Your task to perform on an android device: Add "razer blackwidow" to the cart on ebay, then select checkout. Image 0: 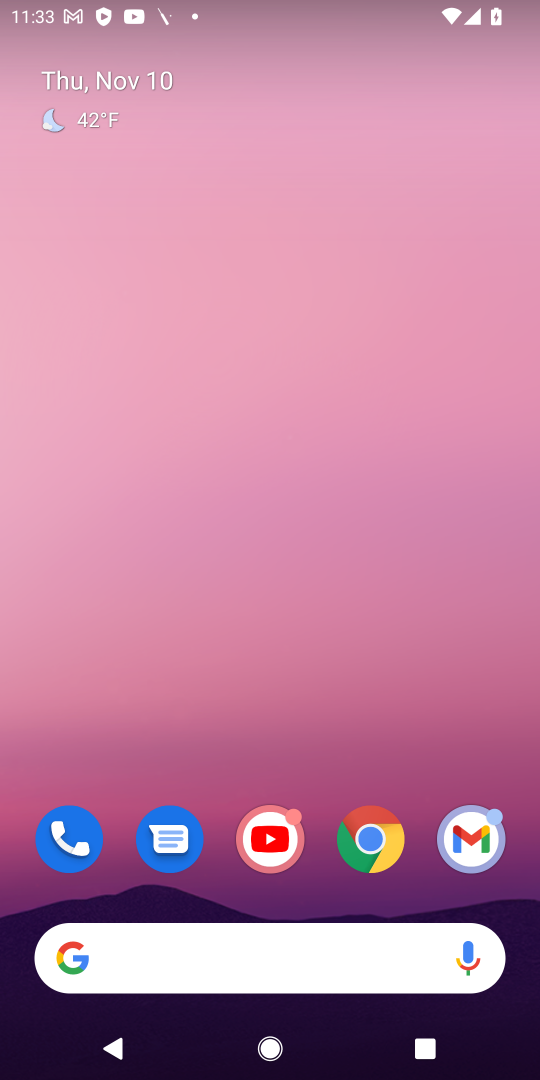
Step 0: click (382, 839)
Your task to perform on an android device: Add "razer blackwidow" to the cart on ebay, then select checkout. Image 1: 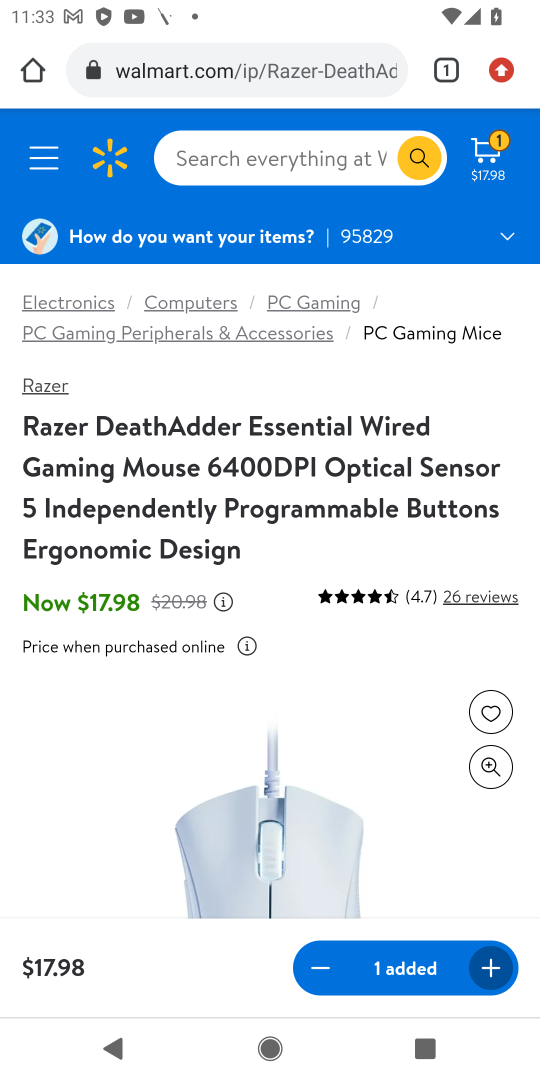
Step 1: click (323, 60)
Your task to perform on an android device: Add "razer blackwidow" to the cart on ebay, then select checkout. Image 2: 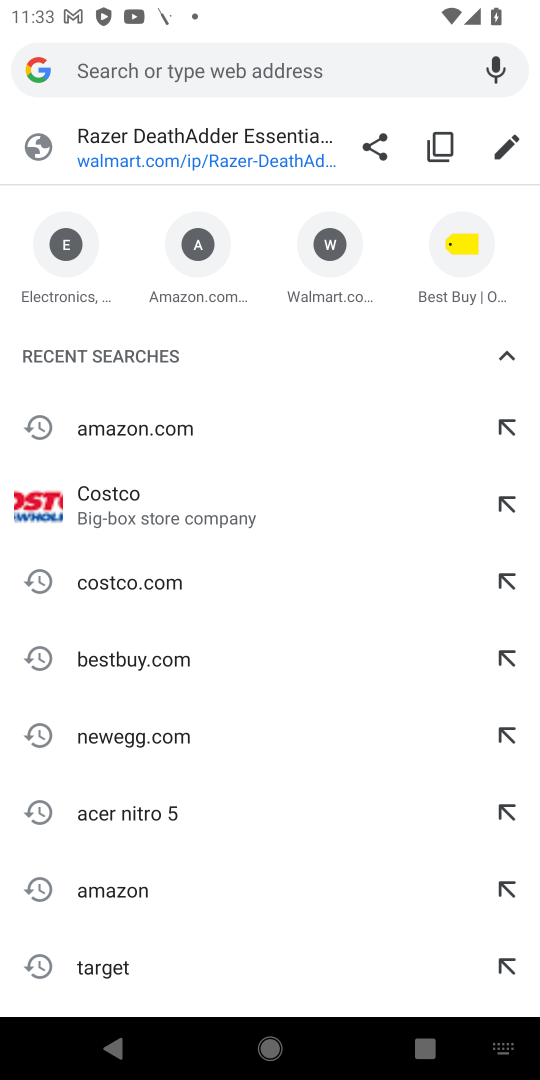
Step 2: type "ebay"
Your task to perform on an android device: Add "razer blackwidow" to the cart on ebay, then select checkout. Image 3: 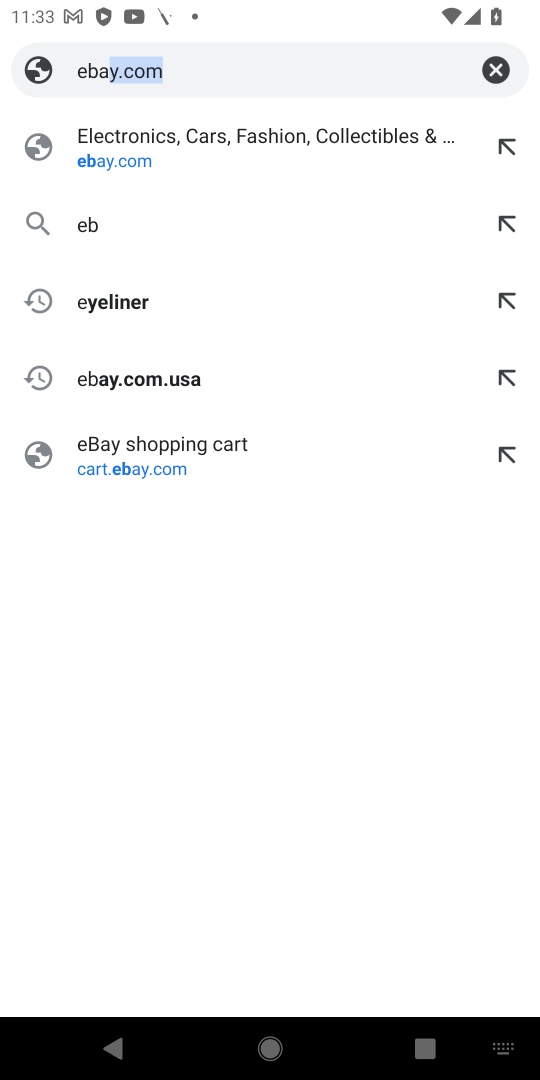
Step 3: press enter
Your task to perform on an android device: Add "razer blackwidow" to the cart on ebay, then select checkout. Image 4: 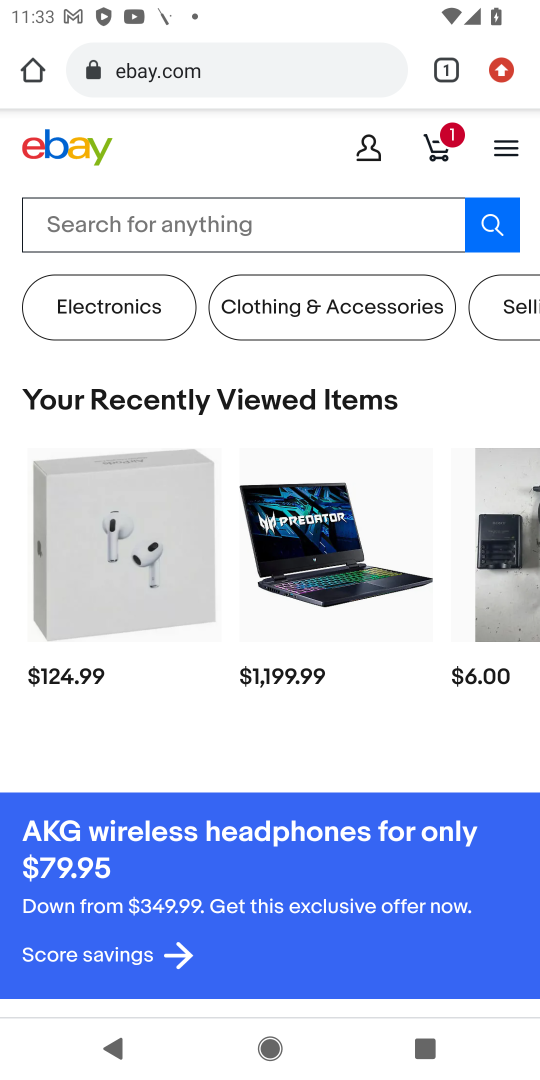
Step 4: click (291, 240)
Your task to perform on an android device: Add "razer blackwidow" to the cart on ebay, then select checkout. Image 5: 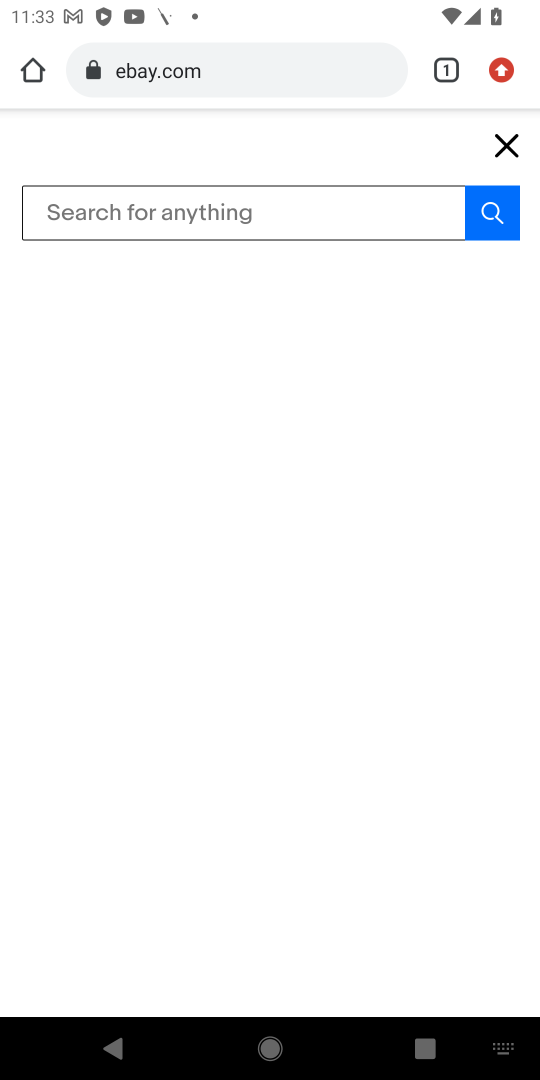
Step 5: type "razer blackwidow"
Your task to perform on an android device: Add "razer blackwidow" to the cart on ebay, then select checkout. Image 6: 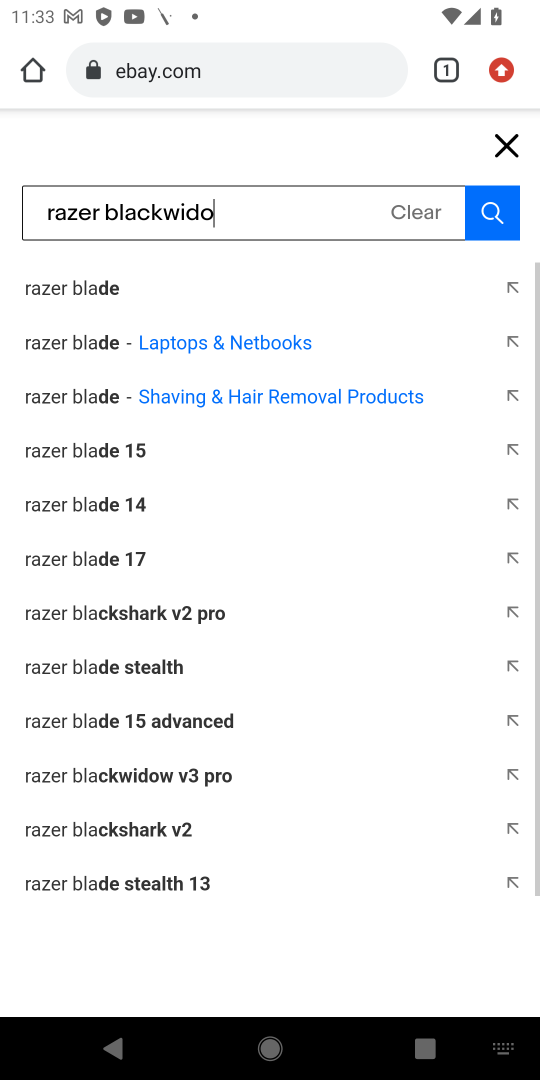
Step 6: press enter
Your task to perform on an android device: Add "razer blackwidow" to the cart on ebay, then select checkout. Image 7: 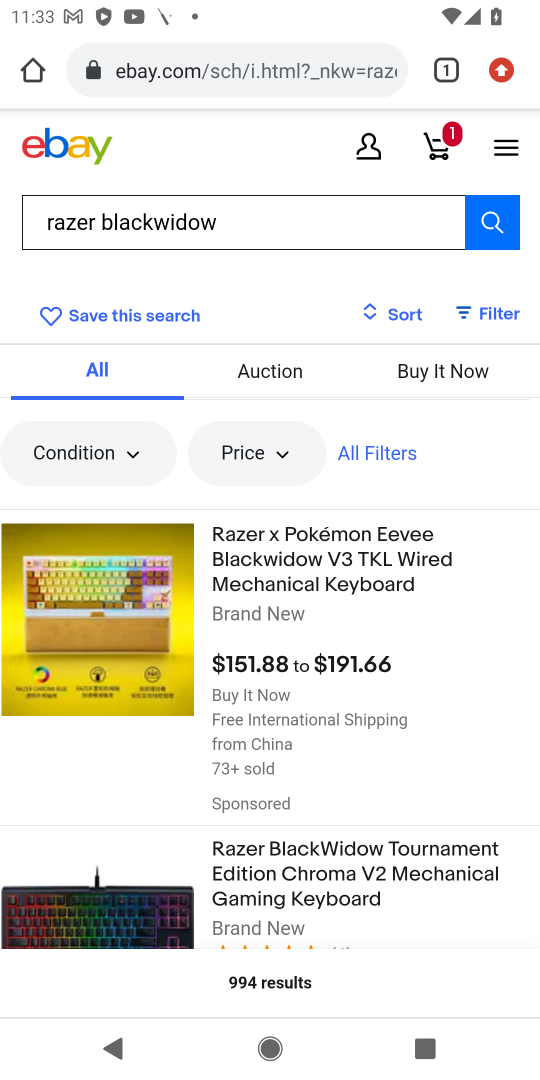
Step 7: click (126, 879)
Your task to perform on an android device: Add "razer blackwidow" to the cart on ebay, then select checkout. Image 8: 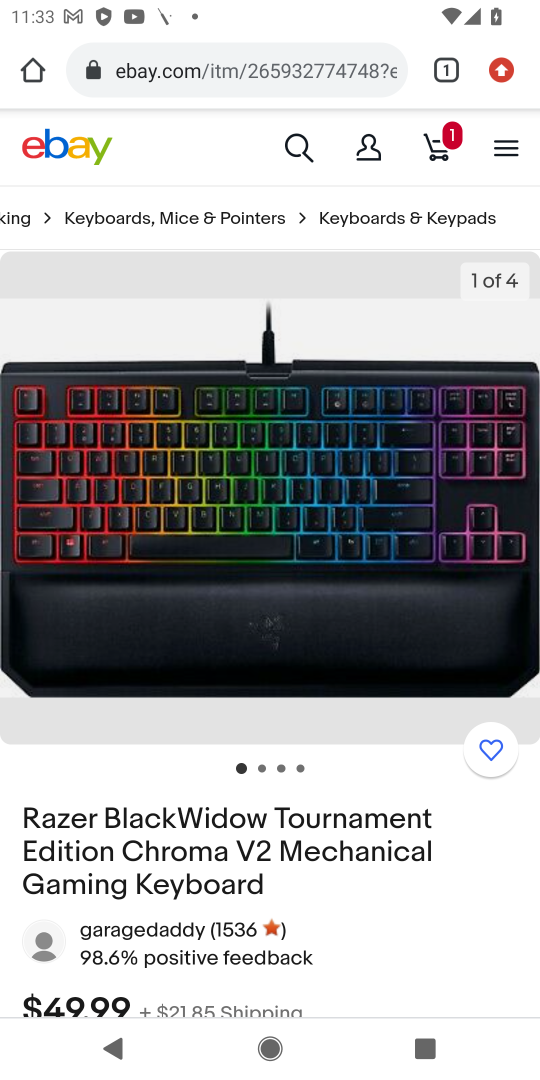
Step 8: drag from (390, 786) to (380, 374)
Your task to perform on an android device: Add "razer blackwidow" to the cart on ebay, then select checkout. Image 9: 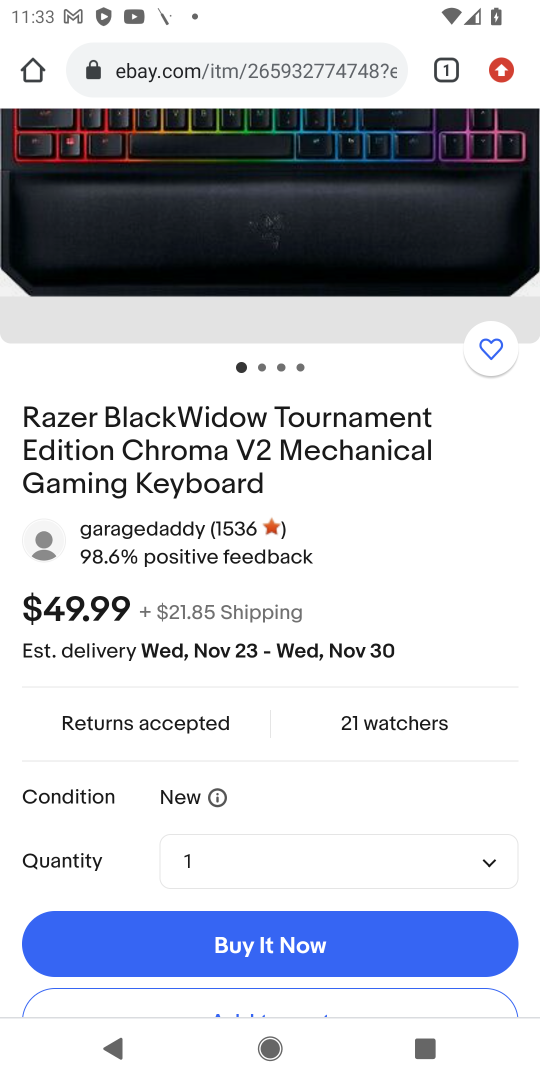
Step 9: drag from (383, 718) to (468, 478)
Your task to perform on an android device: Add "razer blackwidow" to the cart on ebay, then select checkout. Image 10: 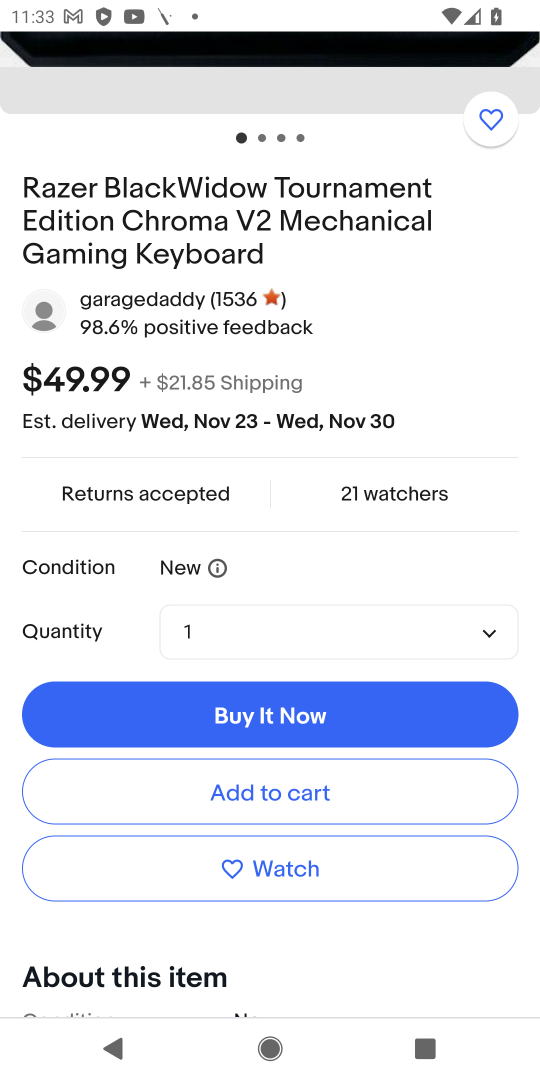
Step 10: click (293, 787)
Your task to perform on an android device: Add "razer blackwidow" to the cart on ebay, then select checkout. Image 11: 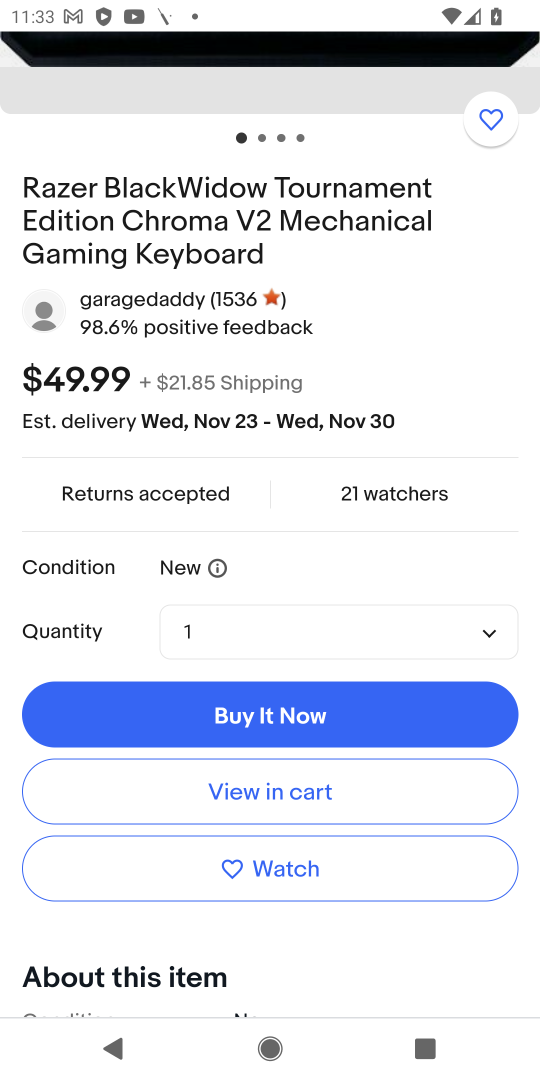
Step 11: click (302, 788)
Your task to perform on an android device: Add "razer blackwidow" to the cart on ebay, then select checkout. Image 12: 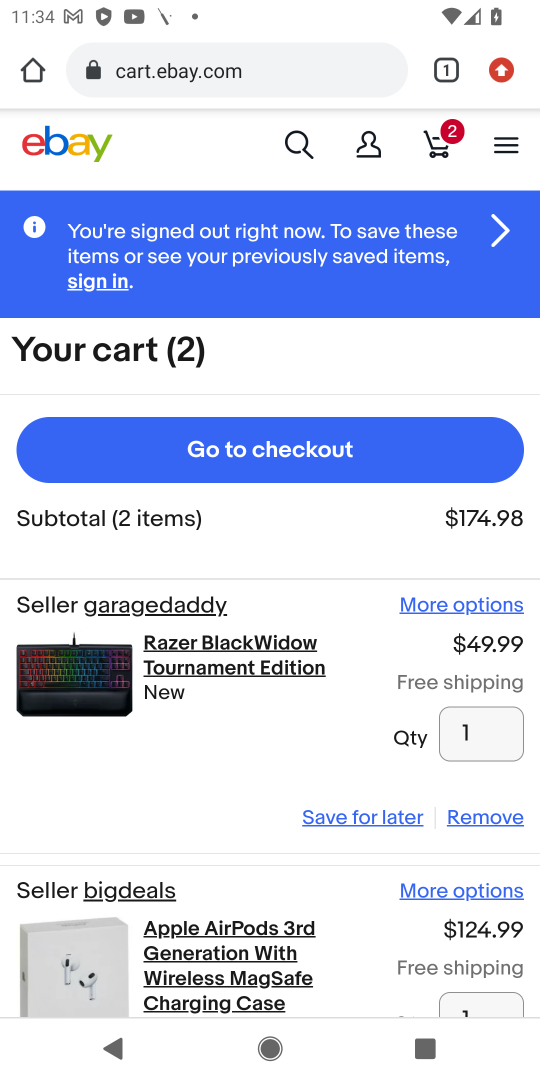
Step 12: click (286, 439)
Your task to perform on an android device: Add "razer blackwidow" to the cart on ebay, then select checkout. Image 13: 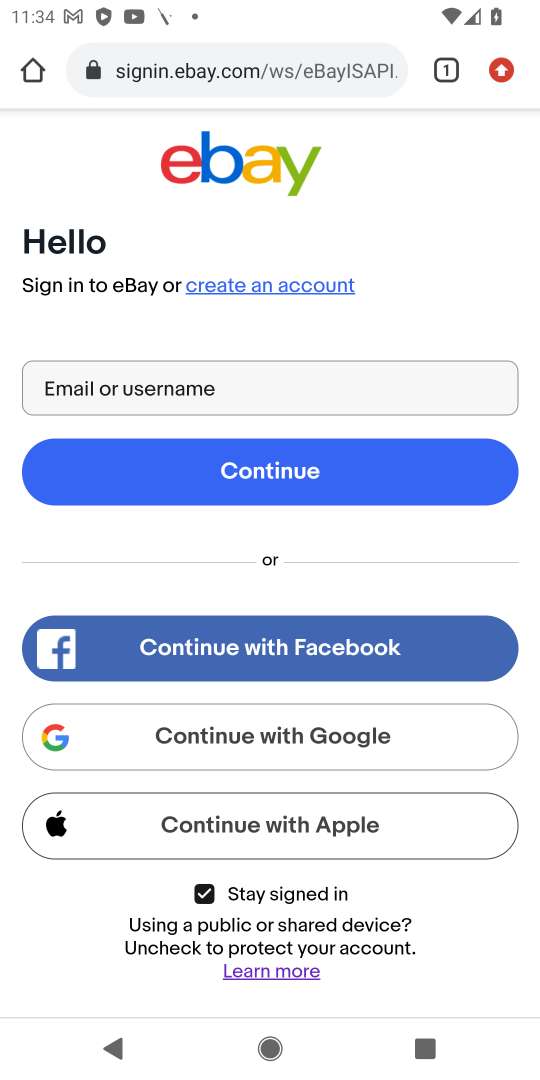
Step 13: task complete